Your task to perform on an android device: check android version Image 0: 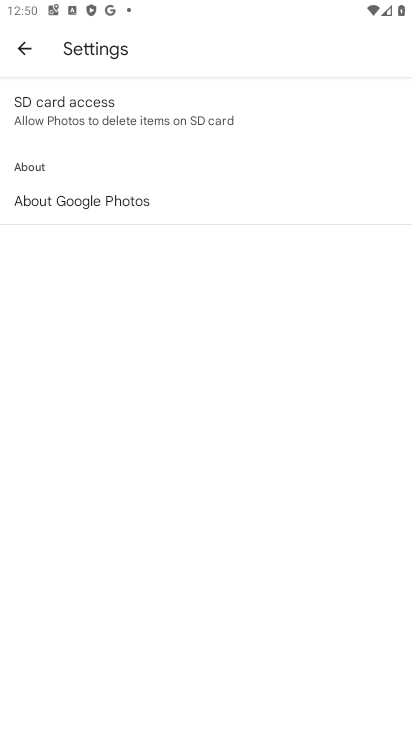
Step 0: press home button
Your task to perform on an android device: check android version Image 1: 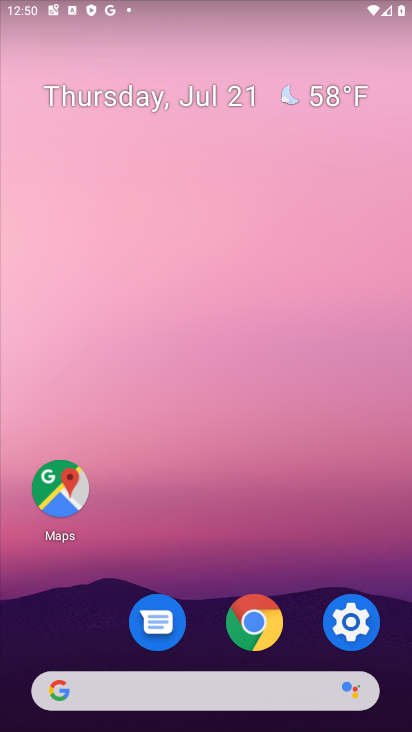
Step 1: click (335, 629)
Your task to perform on an android device: check android version Image 2: 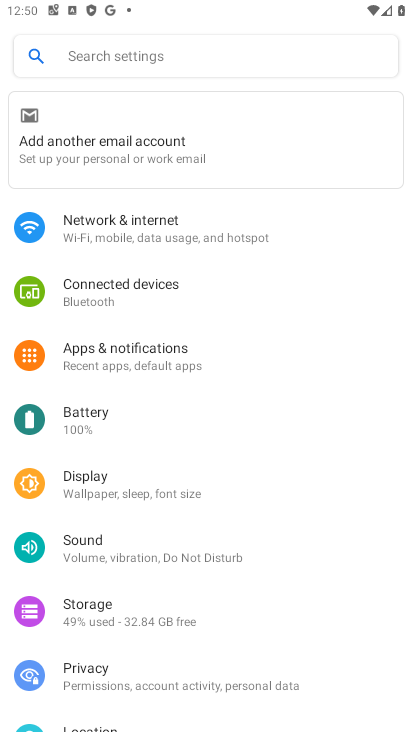
Step 2: click (111, 42)
Your task to perform on an android device: check android version Image 3: 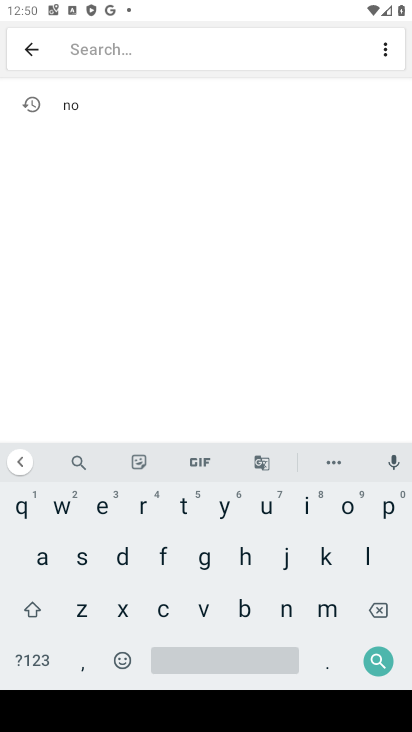
Step 3: click (36, 566)
Your task to perform on an android device: check android version Image 4: 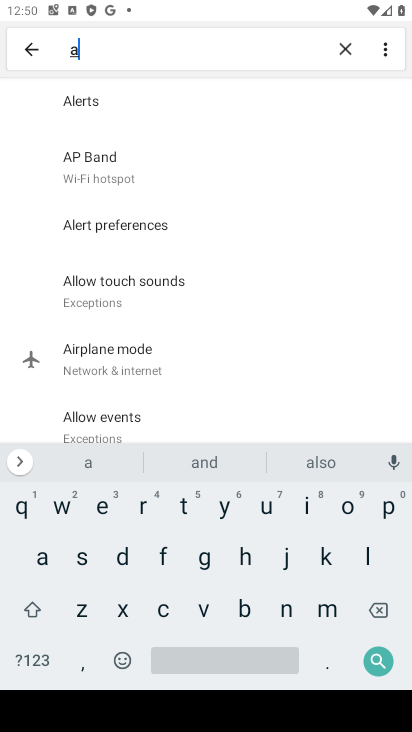
Step 4: click (288, 609)
Your task to perform on an android device: check android version Image 5: 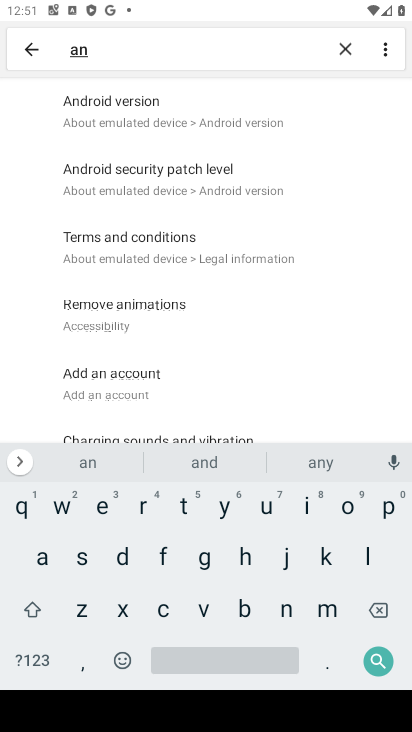
Step 5: click (131, 103)
Your task to perform on an android device: check android version Image 6: 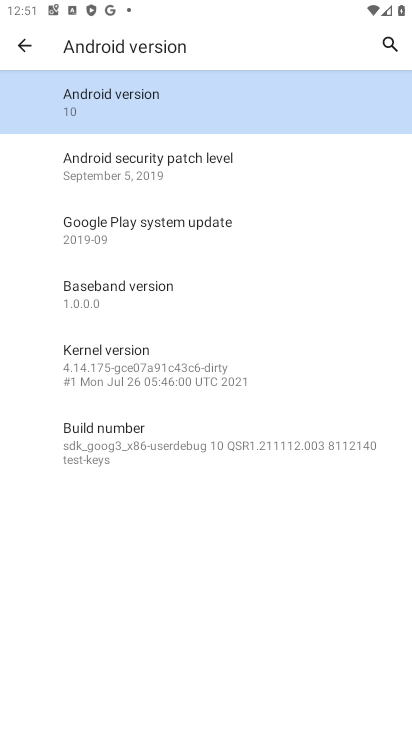
Step 6: click (109, 112)
Your task to perform on an android device: check android version Image 7: 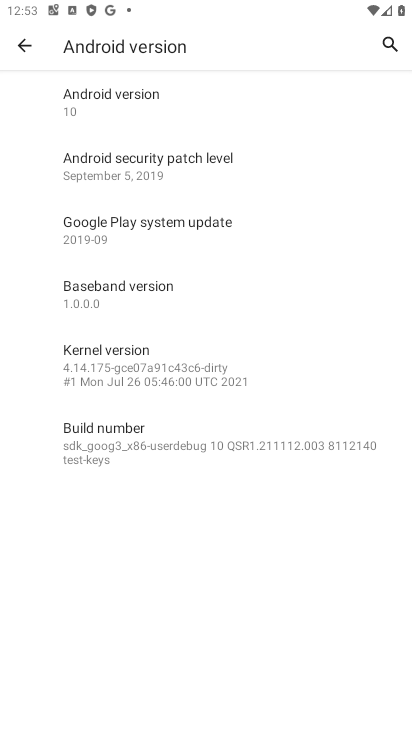
Step 7: task complete